Your task to perform on an android device: Open my contact list Image 0: 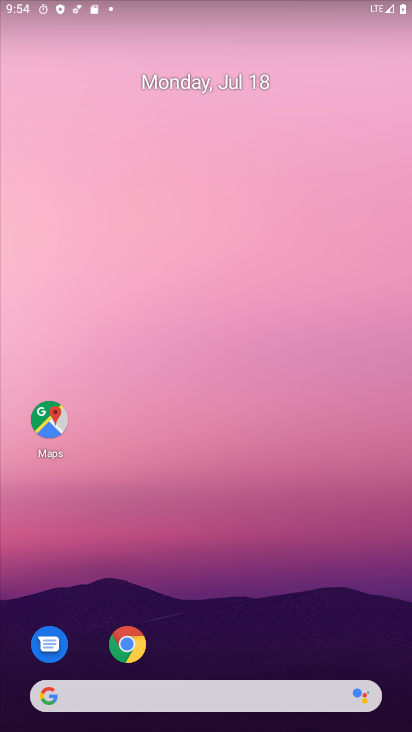
Step 0: press home button
Your task to perform on an android device: Open my contact list Image 1: 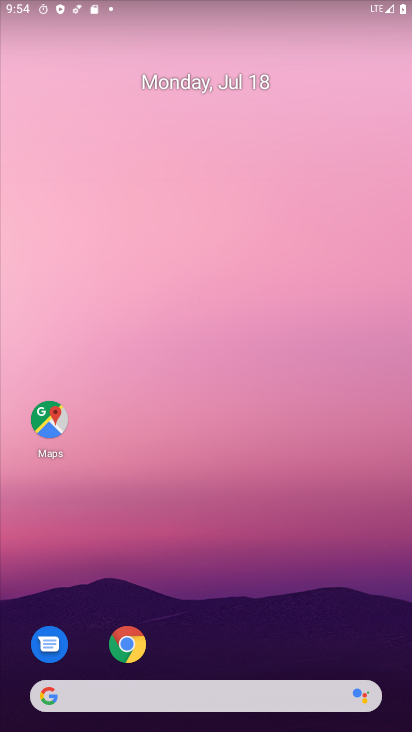
Step 1: drag from (225, 657) to (246, 50)
Your task to perform on an android device: Open my contact list Image 2: 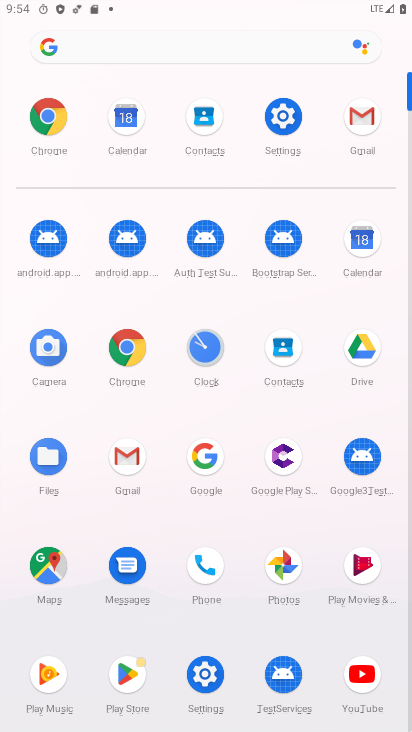
Step 2: click (279, 347)
Your task to perform on an android device: Open my contact list Image 3: 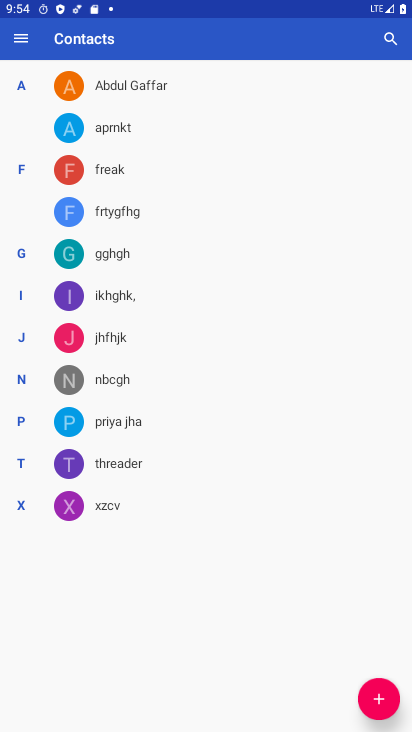
Step 3: task complete